Your task to perform on an android device: What is the recent news? Image 0: 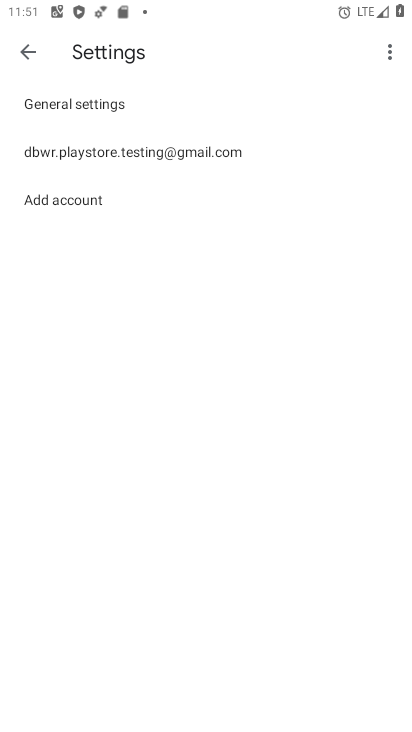
Step 0: press home button
Your task to perform on an android device: What is the recent news? Image 1: 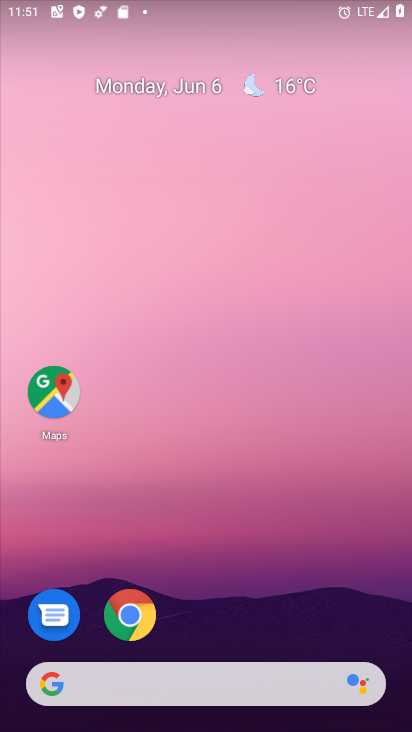
Step 1: task complete